Your task to perform on an android device: delete browsing data in the chrome app Image 0: 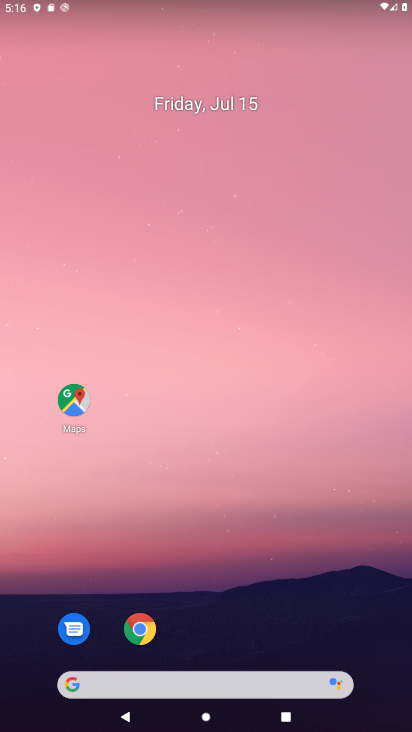
Step 0: click (139, 626)
Your task to perform on an android device: delete browsing data in the chrome app Image 1: 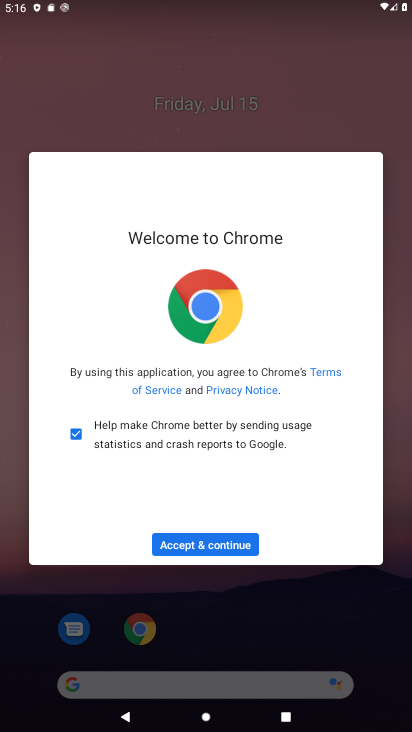
Step 1: click (235, 534)
Your task to perform on an android device: delete browsing data in the chrome app Image 2: 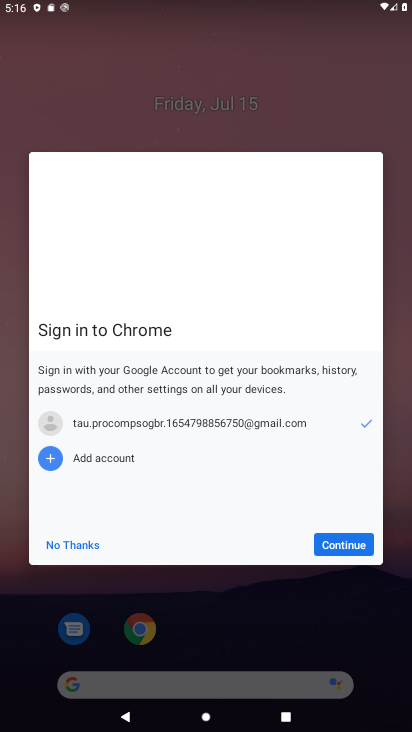
Step 2: click (330, 535)
Your task to perform on an android device: delete browsing data in the chrome app Image 3: 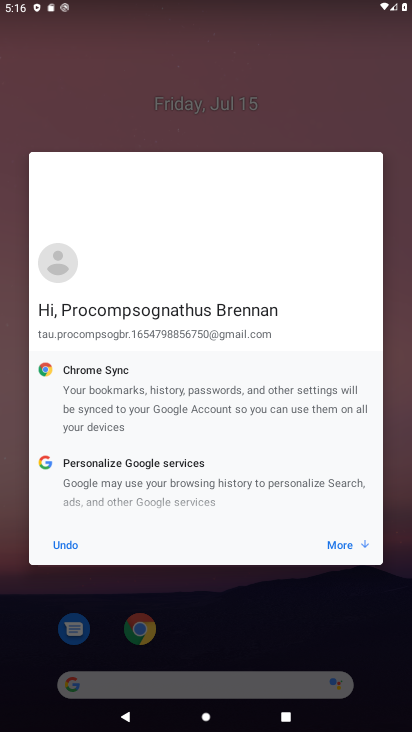
Step 3: click (344, 538)
Your task to perform on an android device: delete browsing data in the chrome app Image 4: 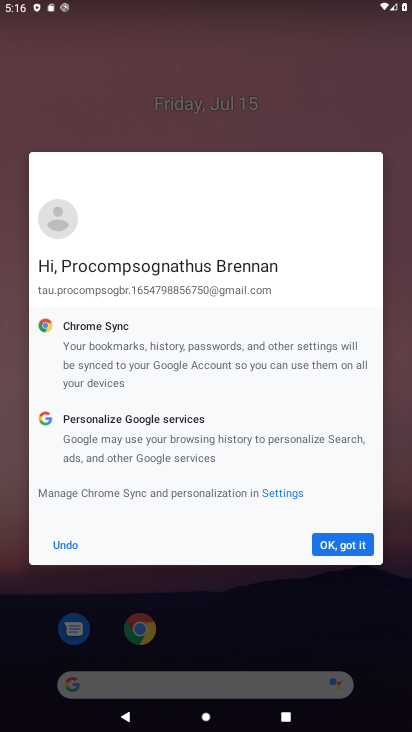
Step 4: click (343, 544)
Your task to perform on an android device: delete browsing data in the chrome app Image 5: 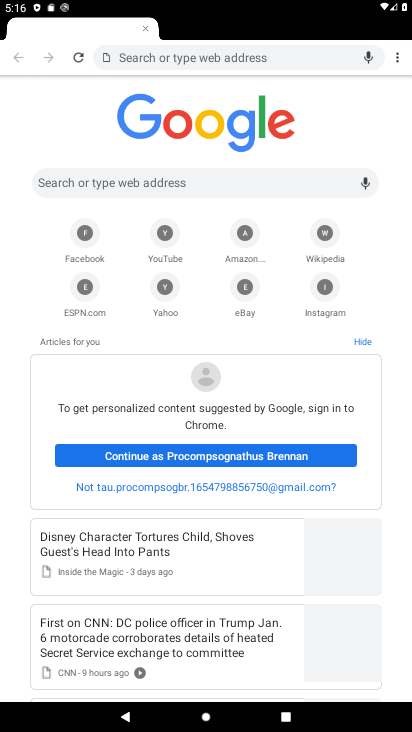
Step 5: task complete